Your task to perform on an android device: Open my contact list Image 0: 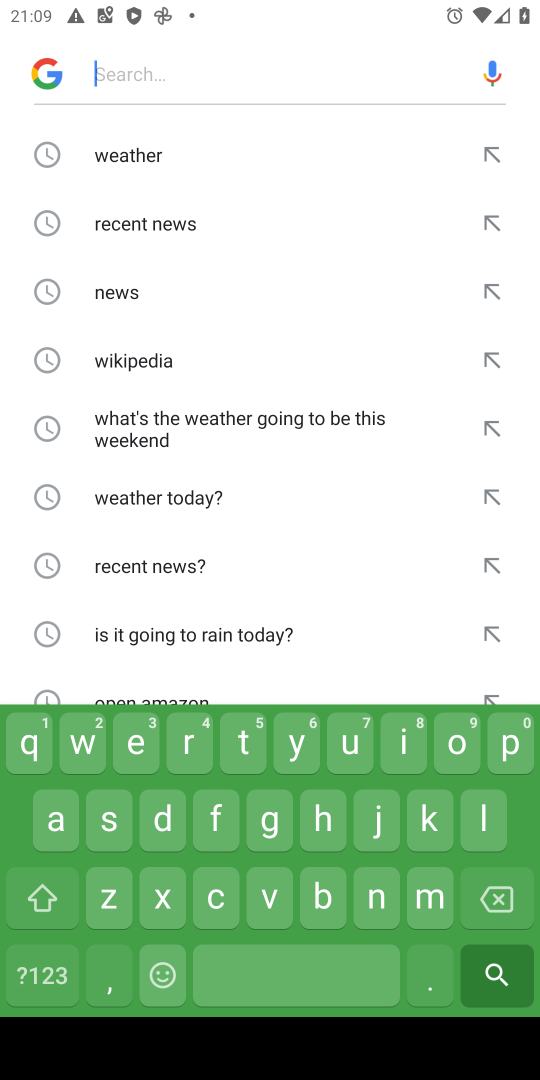
Step 0: press home button
Your task to perform on an android device: Open my contact list Image 1: 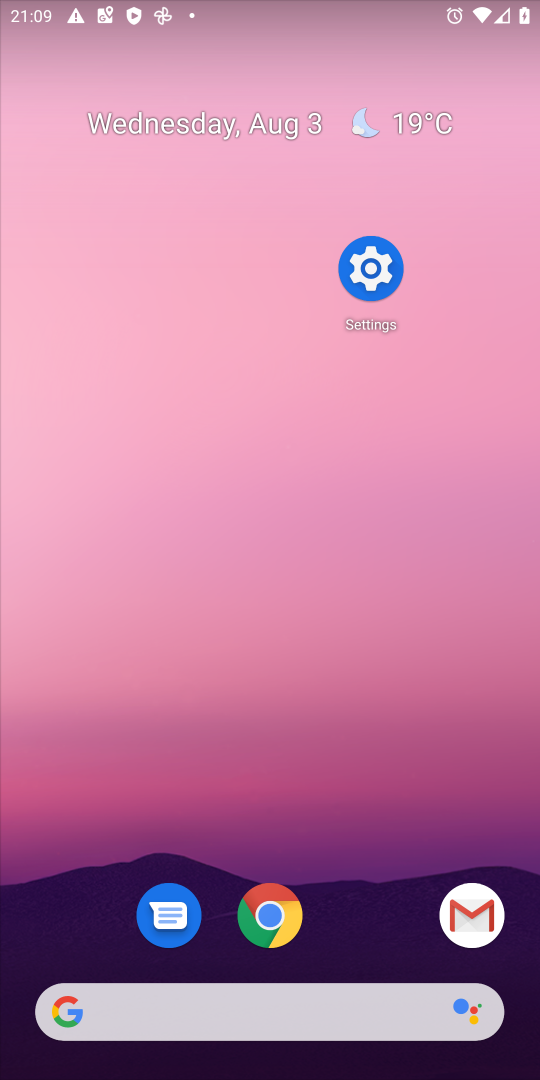
Step 1: drag from (356, 1017) to (302, 209)
Your task to perform on an android device: Open my contact list Image 2: 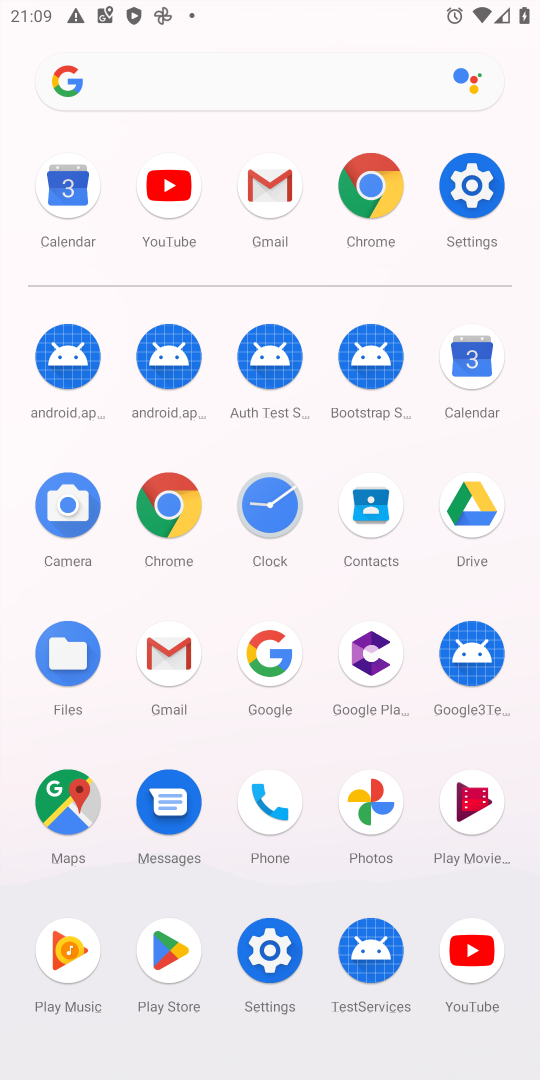
Step 2: click (268, 796)
Your task to perform on an android device: Open my contact list Image 3: 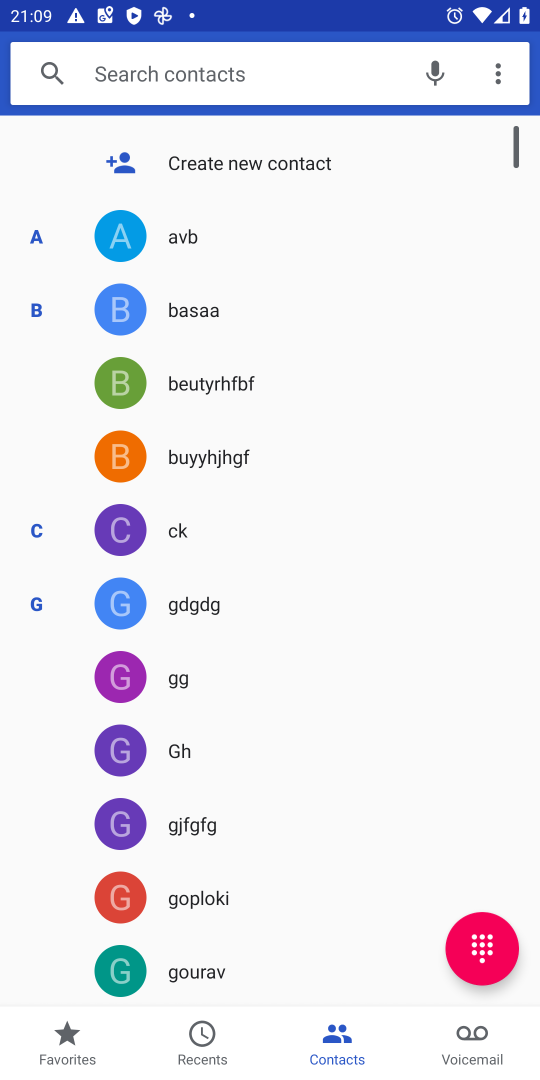
Step 3: click (339, 1042)
Your task to perform on an android device: Open my contact list Image 4: 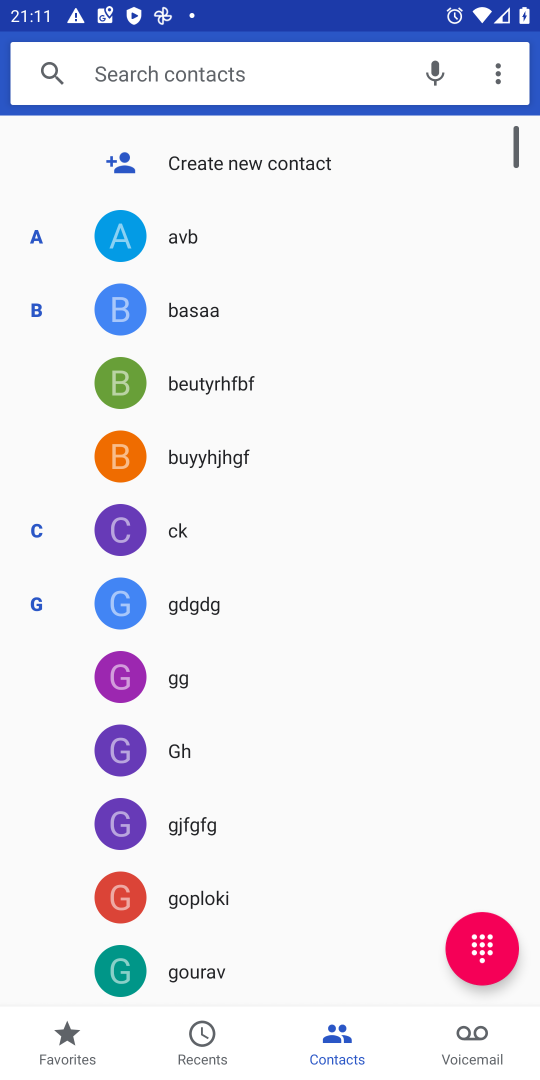
Step 4: task complete